Your task to perform on an android device: Open the stopwatch Image 0: 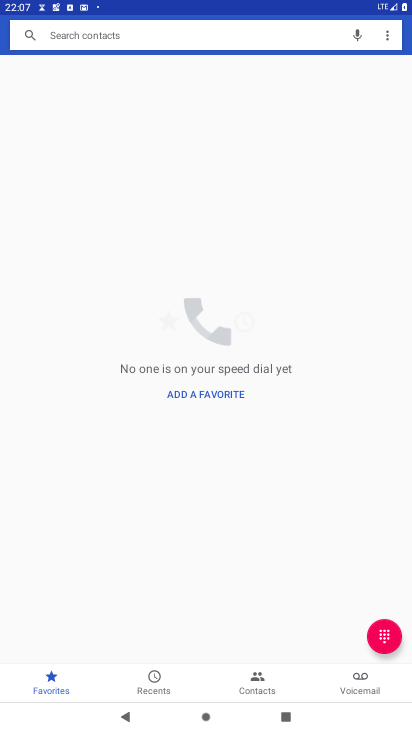
Step 0: press home button
Your task to perform on an android device: Open the stopwatch Image 1: 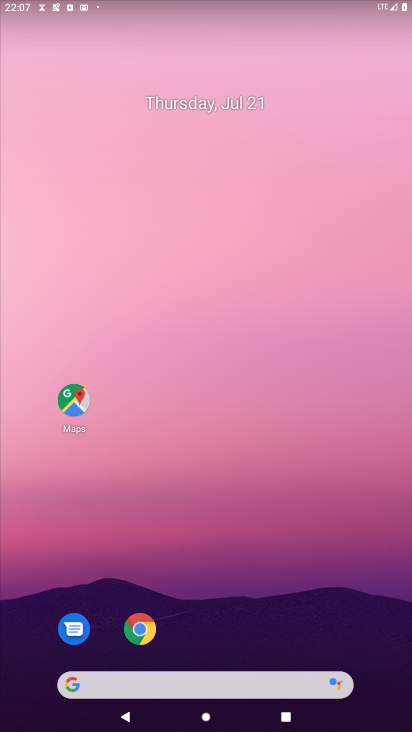
Step 1: drag from (255, 582) to (289, 86)
Your task to perform on an android device: Open the stopwatch Image 2: 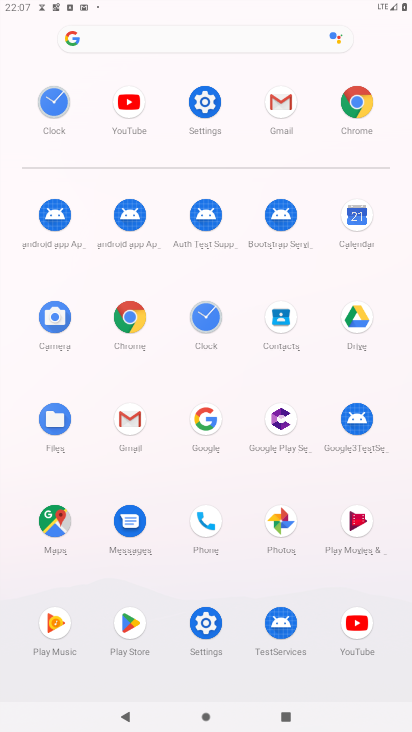
Step 2: click (208, 328)
Your task to perform on an android device: Open the stopwatch Image 3: 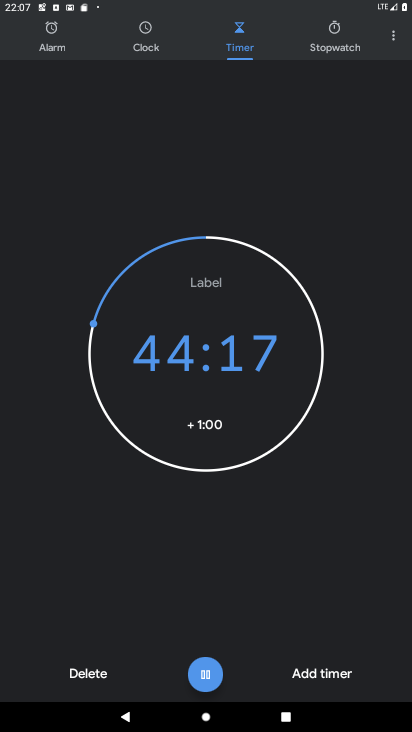
Step 3: click (338, 37)
Your task to perform on an android device: Open the stopwatch Image 4: 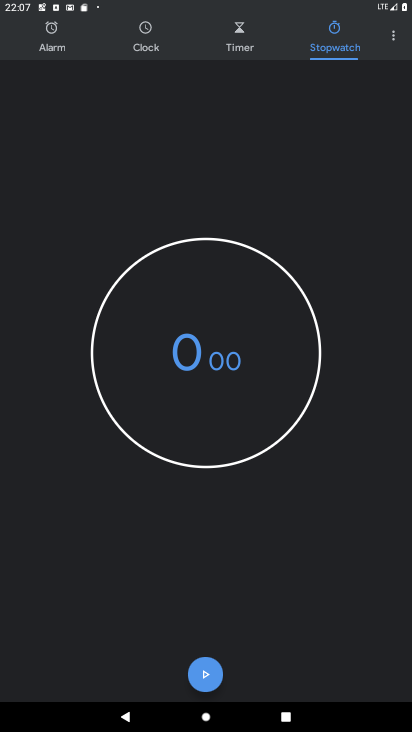
Step 4: click (206, 677)
Your task to perform on an android device: Open the stopwatch Image 5: 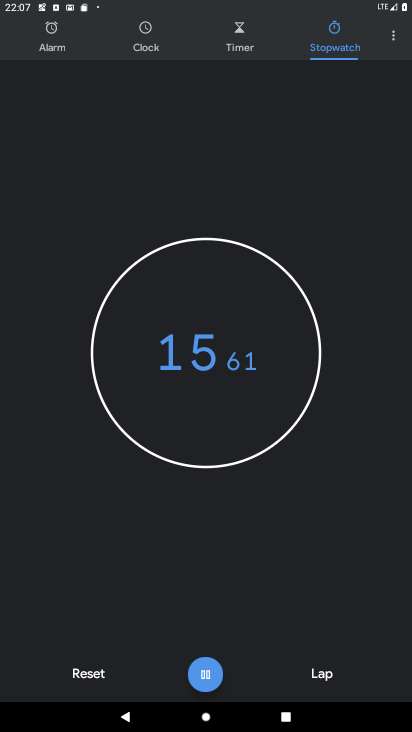
Step 5: task complete